Your task to perform on an android device: search for starred emails in the gmail app Image 0: 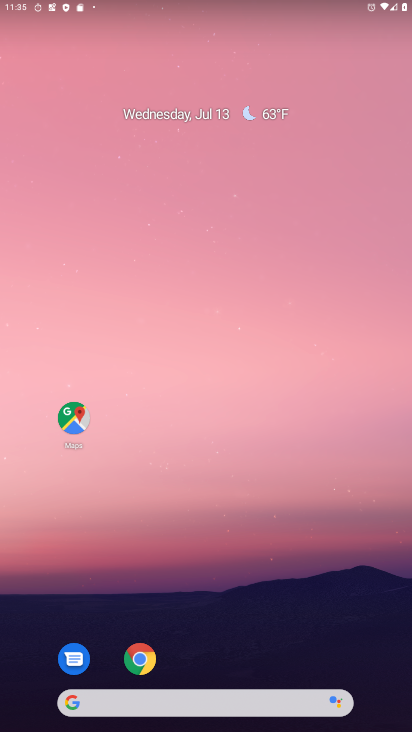
Step 0: drag from (270, 546) to (197, 126)
Your task to perform on an android device: search for starred emails in the gmail app Image 1: 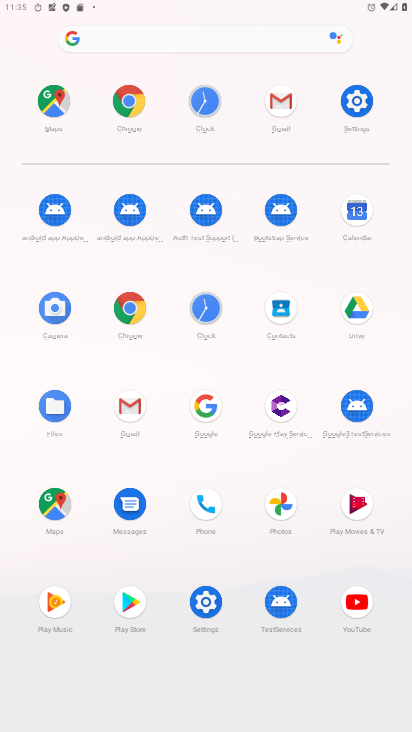
Step 1: click (280, 96)
Your task to perform on an android device: search for starred emails in the gmail app Image 2: 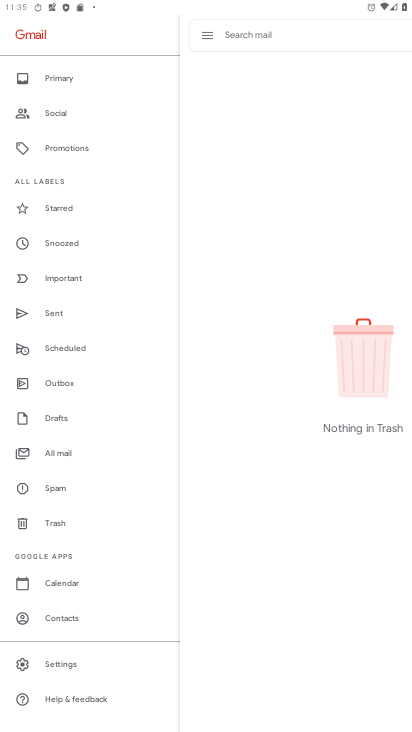
Step 2: click (67, 204)
Your task to perform on an android device: search for starred emails in the gmail app Image 3: 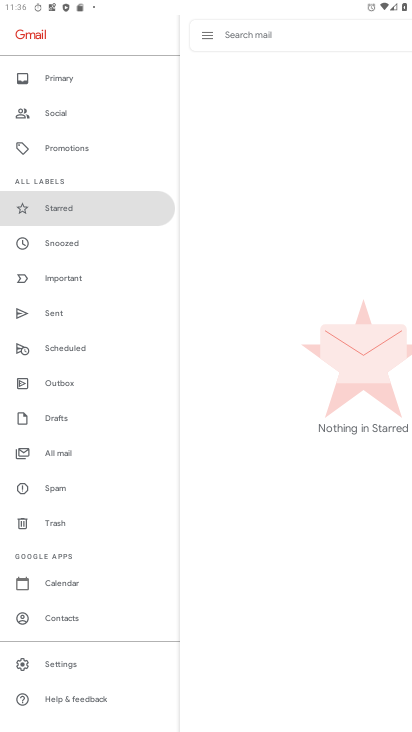
Step 3: task complete